Your task to perform on an android device: see sites visited before in the chrome app Image 0: 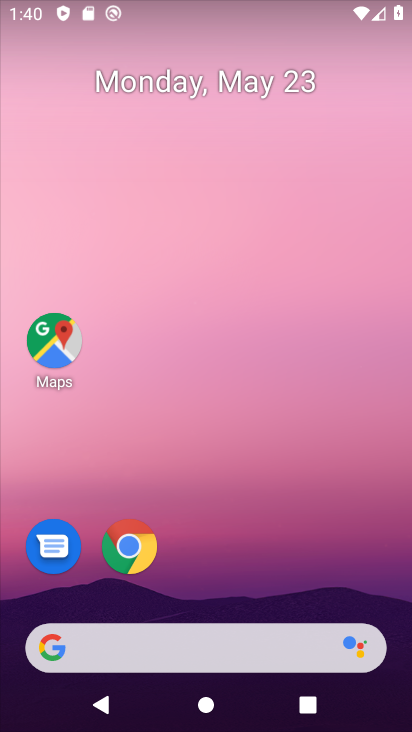
Step 0: click (129, 542)
Your task to perform on an android device: see sites visited before in the chrome app Image 1: 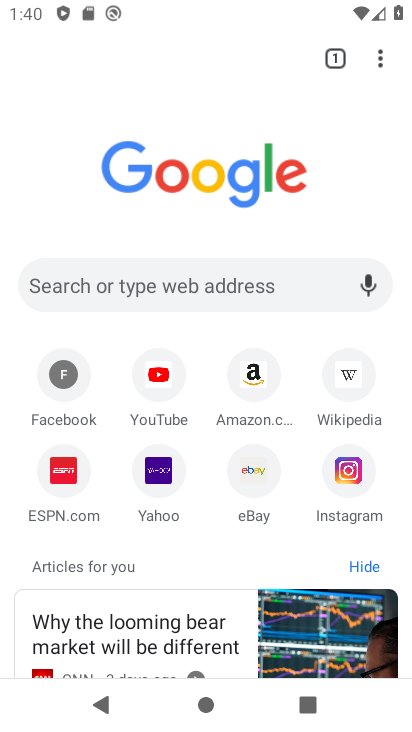
Step 1: task complete